Your task to perform on an android device: toggle priority inbox in the gmail app Image 0: 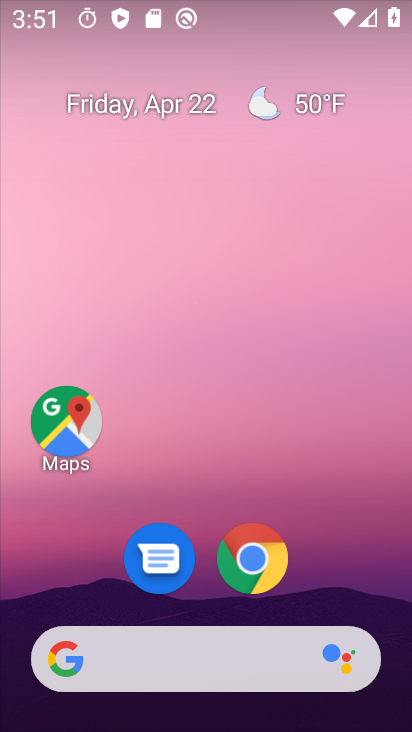
Step 0: drag from (335, 572) to (319, 260)
Your task to perform on an android device: toggle priority inbox in the gmail app Image 1: 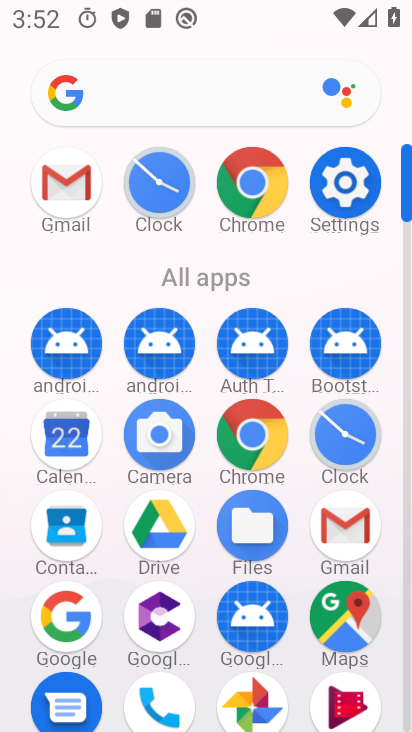
Step 1: click (346, 551)
Your task to perform on an android device: toggle priority inbox in the gmail app Image 2: 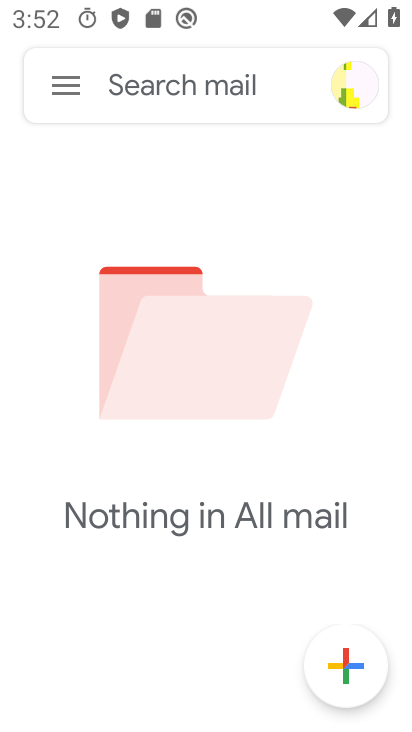
Step 2: click (67, 100)
Your task to perform on an android device: toggle priority inbox in the gmail app Image 3: 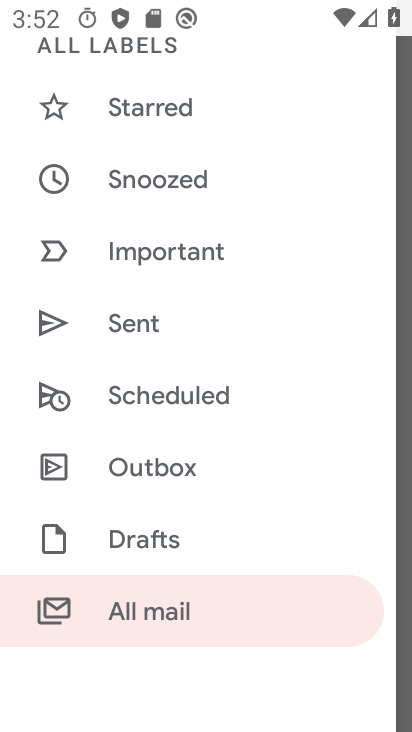
Step 3: click (202, 211)
Your task to perform on an android device: toggle priority inbox in the gmail app Image 4: 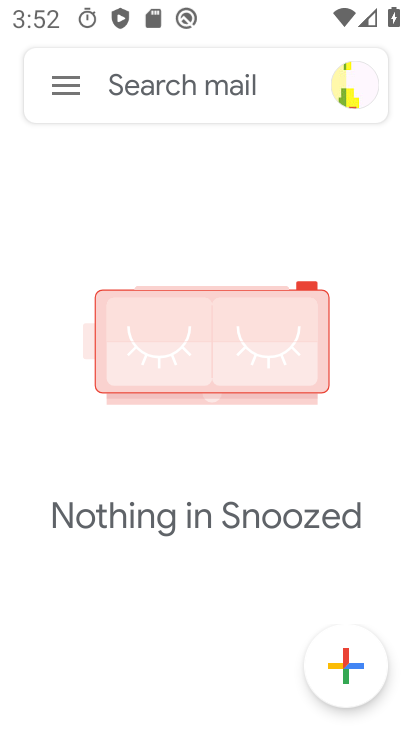
Step 4: click (194, 449)
Your task to perform on an android device: toggle priority inbox in the gmail app Image 5: 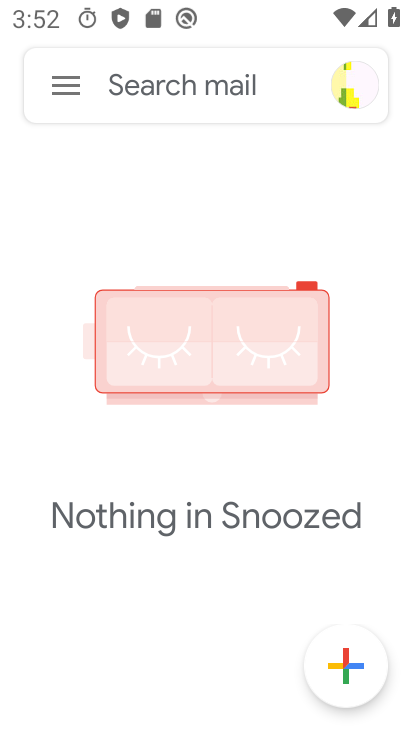
Step 5: click (63, 91)
Your task to perform on an android device: toggle priority inbox in the gmail app Image 6: 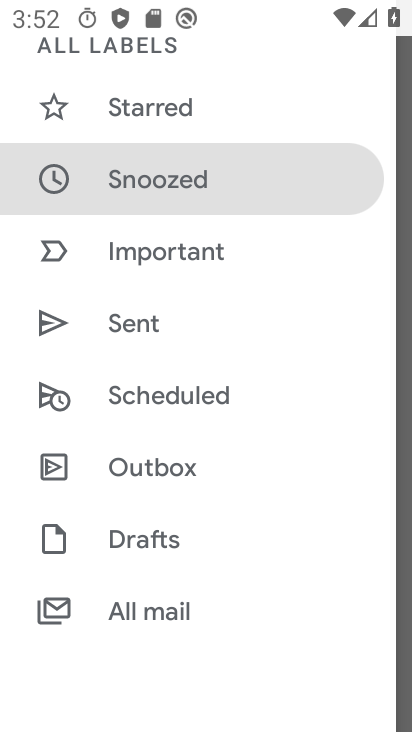
Step 6: click (255, 542)
Your task to perform on an android device: toggle priority inbox in the gmail app Image 7: 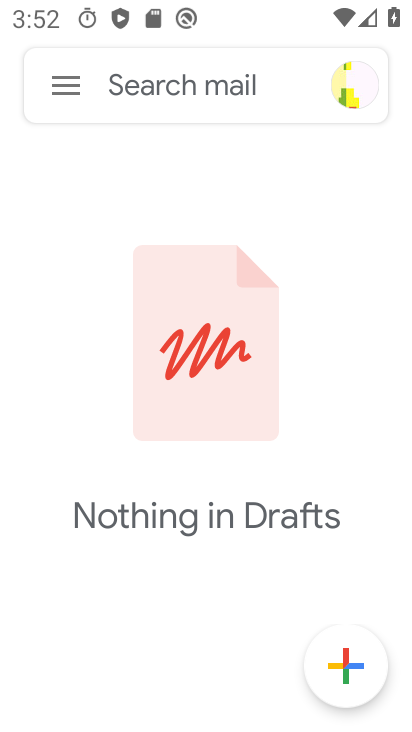
Step 7: click (54, 91)
Your task to perform on an android device: toggle priority inbox in the gmail app Image 8: 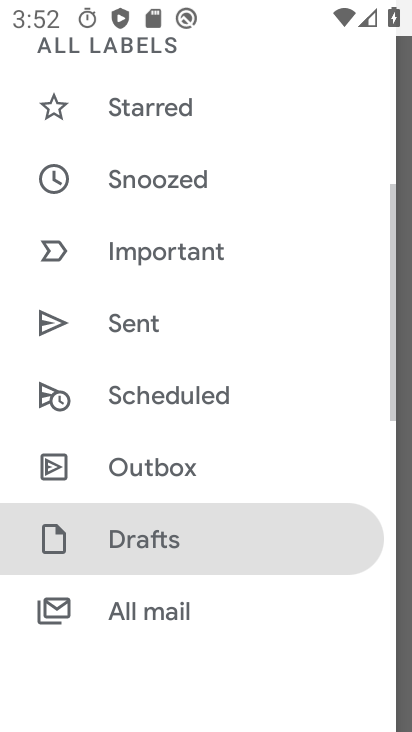
Step 8: drag from (278, 314) to (238, 604)
Your task to perform on an android device: toggle priority inbox in the gmail app Image 9: 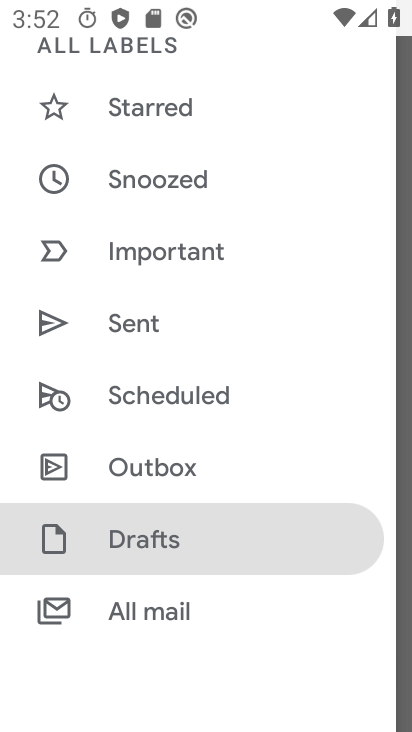
Step 9: drag from (291, 173) to (265, 493)
Your task to perform on an android device: toggle priority inbox in the gmail app Image 10: 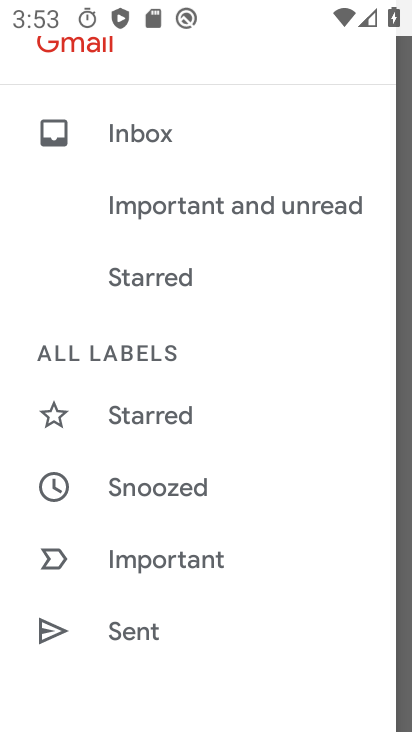
Step 10: drag from (270, 280) to (268, 594)
Your task to perform on an android device: toggle priority inbox in the gmail app Image 11: 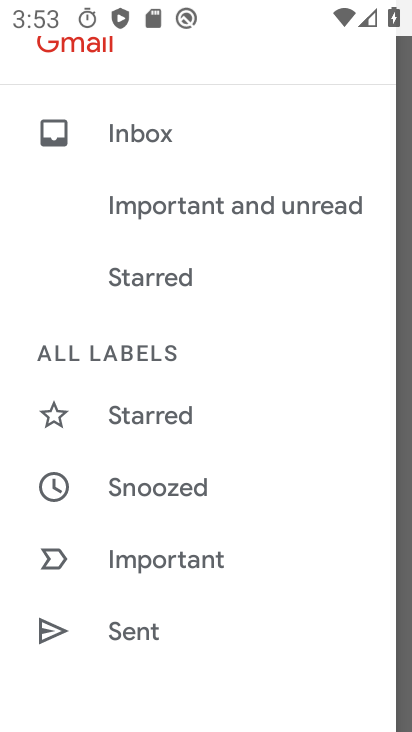
Step 11: drag from (254, 339) to (179, 648)
Your task to perform on an android device: toggle priority inbox in the gmail app Image 12: 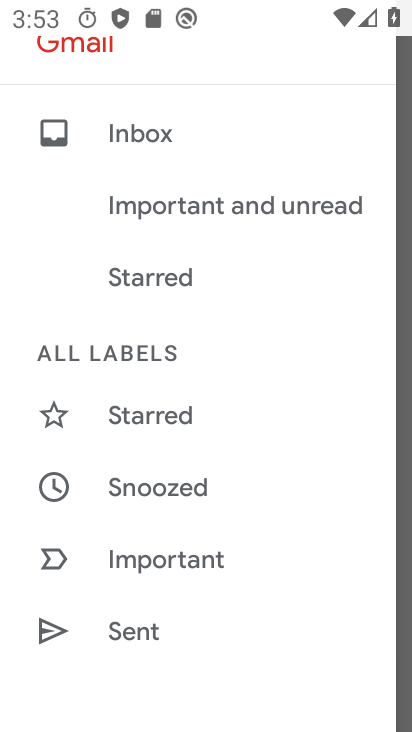
Step 12: drag from (151, 331) to (154, 673)
Your task to perform on an android device: toggle priority inbox in the gmail app Image 13: 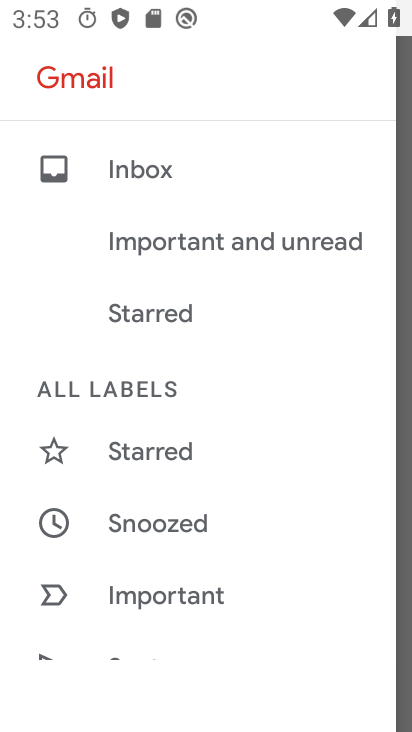
Step 13: drag from (246, 304) to (226, 570)
Your task to perform on an android device: toggle priority inbox in the gmail app Image 14: 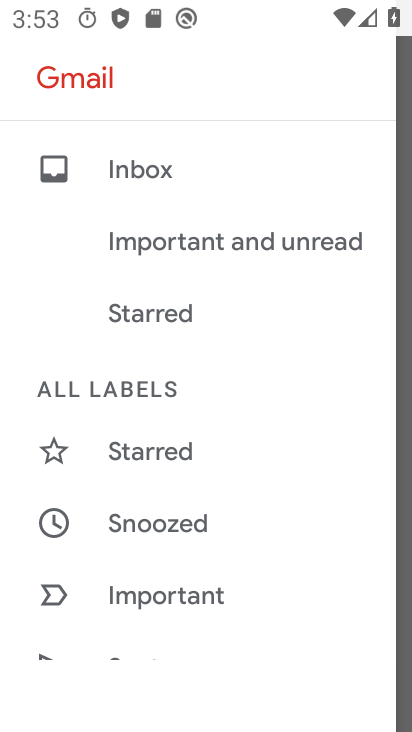
Step 14: drag from (214, 575) to (232, 221)
Your task to perform on an android device: toggle priority inbox in the gmail app Image 15: 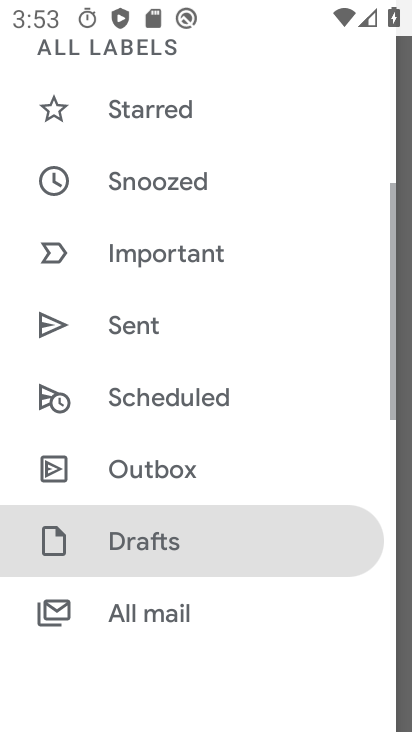
Step 15: drag from (198, 595) to (223, 322)
Your task to perform on an android device: toggle priority inbox in the gmail app Image 16: 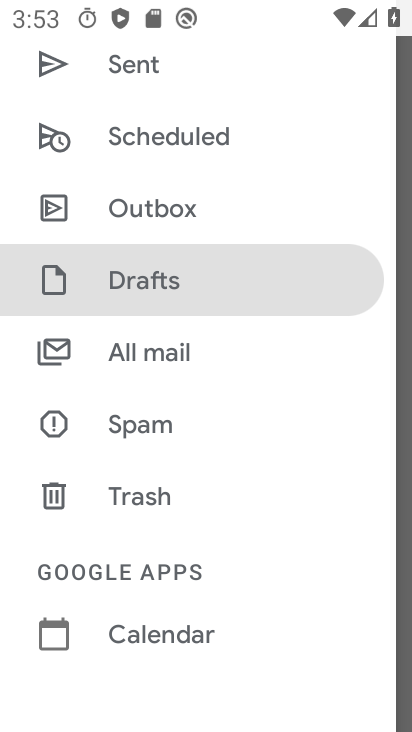
Step 16: drag from (217, 584) to (263, 237)
Your task to perform on an android device: toggle priority inbox in the gmail app Image 17: 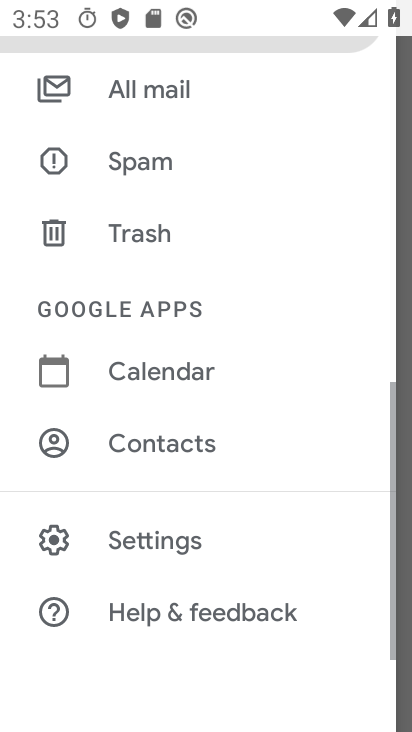
Step 17: click (146, 537)
Your task to perform on an android device: toggle priority inbox in the gmail app Image 18: 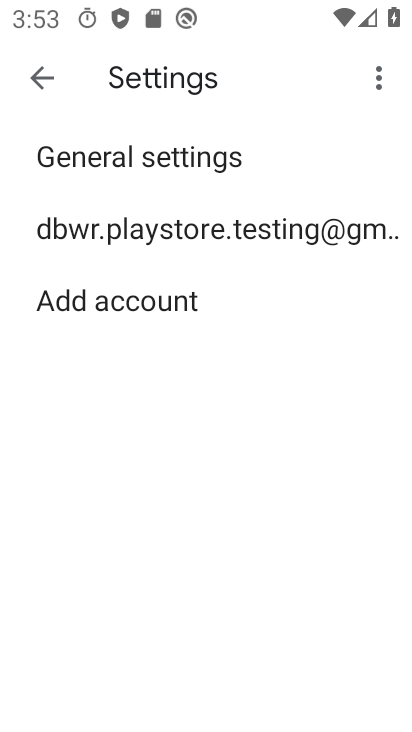
Step 18: click (231, 239)
Your task to perform on an android device: toggle priority inbox in the gmail app Image 19: 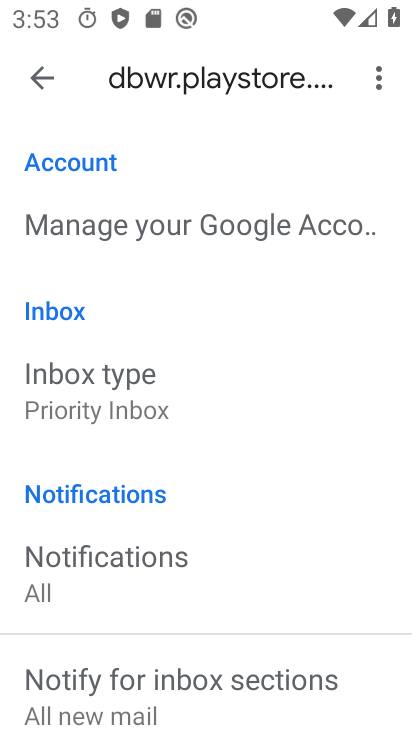
Step 19: click (131, 405)
Your task to perform on an android device: toggle priority inbox in the gmail app Image 20: 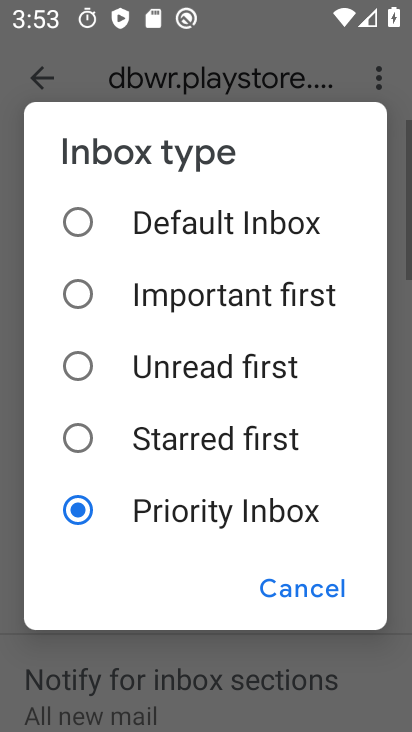
Step 20: click (98, 224)
Your task to perform on an android device: toggle priority inbox in the gmail app Image 21: 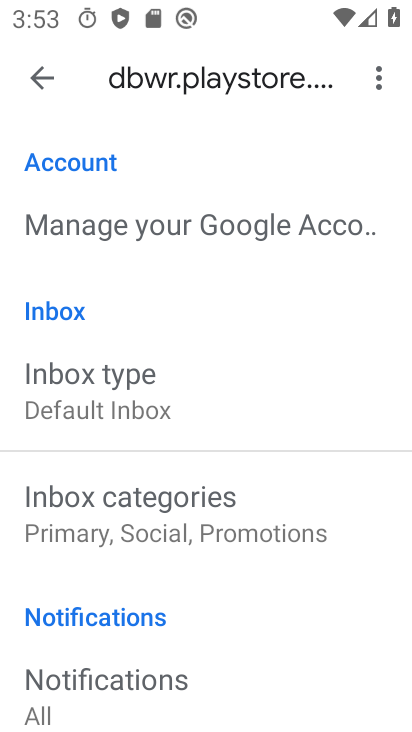
Step 21: task complete